Your task to perform on an android device: refresh tabs in the chrome app Image 0: 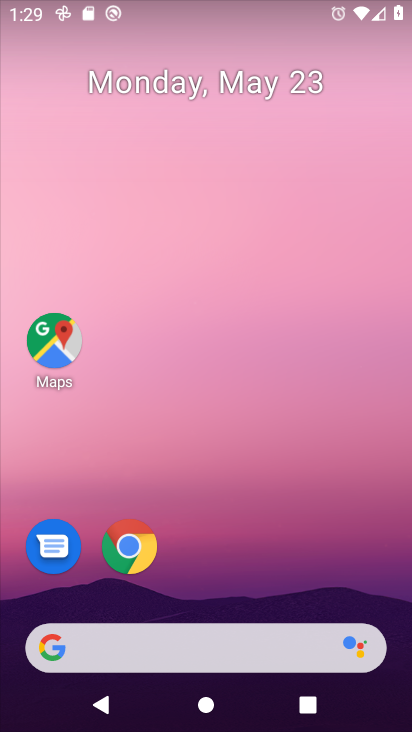
Step 0: drag from (239, 643) to (200, 325)
Your task to perform on an android device: refresh tabs in the chrome app Image 1: 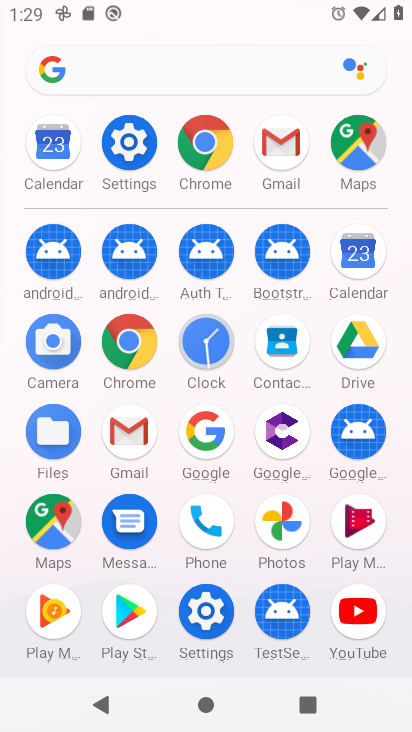
Step 1: click (217, 145)
Your task to perform on an android device: refresh tabs in the chrome app Image 2: 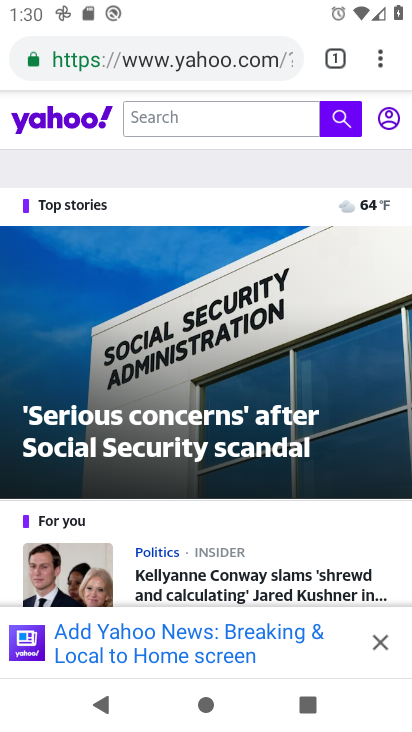
Step 2: click (386, 66)
Your task to perform on an android device: refresh tabs in the chrome app Image 3: 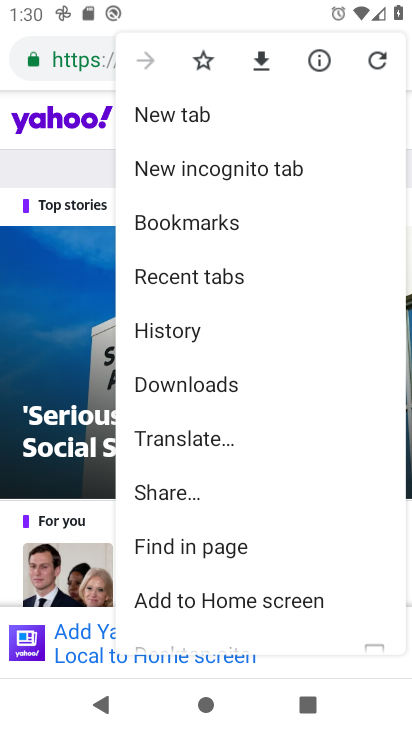
Step 3: click (376, 66)
Your task to perform on an android device: refresh tabs in the chrome app Image 4: 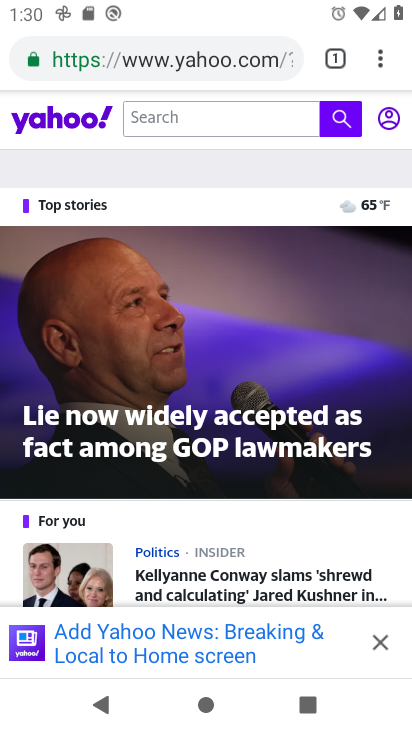
Step 4: task complete